Your task to perform on an android device: open device folders in google photos Image 0: 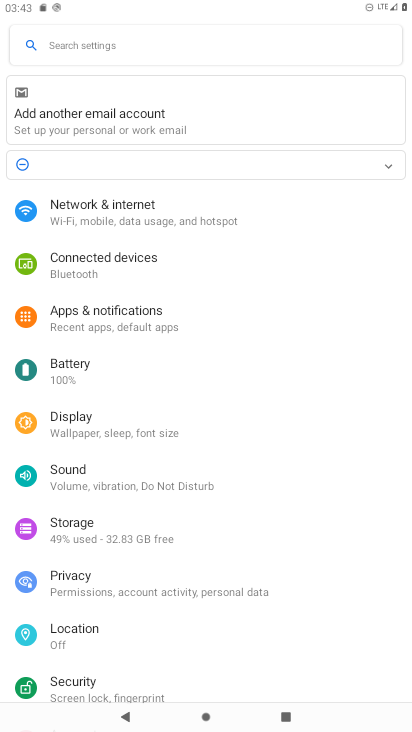
Step 0: press home button
Your task to perform on an android device: open device folders in google photos Image 1: 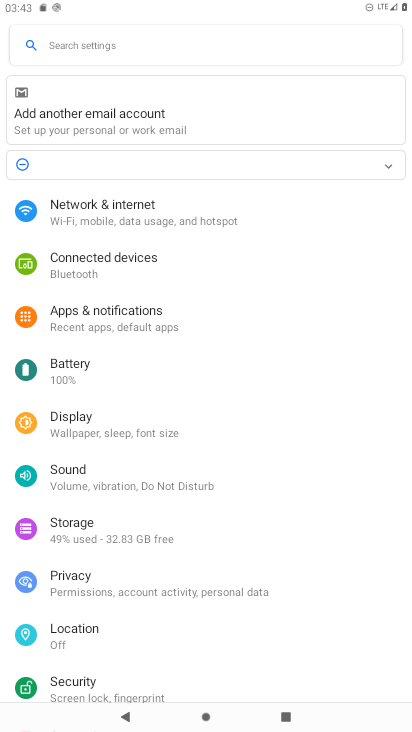
Step 1: press home button
Your task to perform on an android device: open device folders in google photos Image 2: 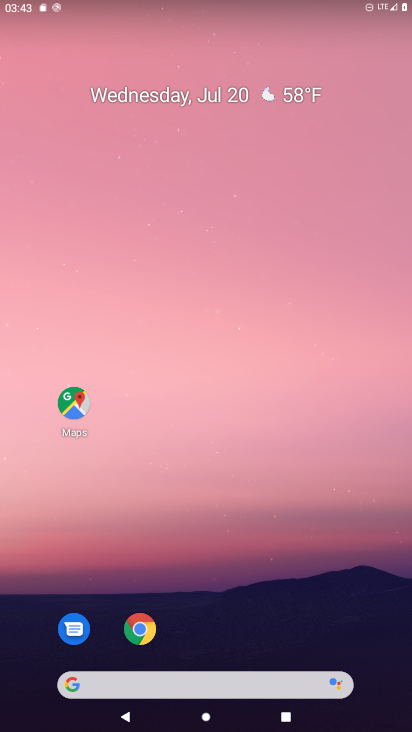
Step 2: drag from (275, 547) to (248, 133)
Your task to perform on an android device: open device folders in google photos Image 3: 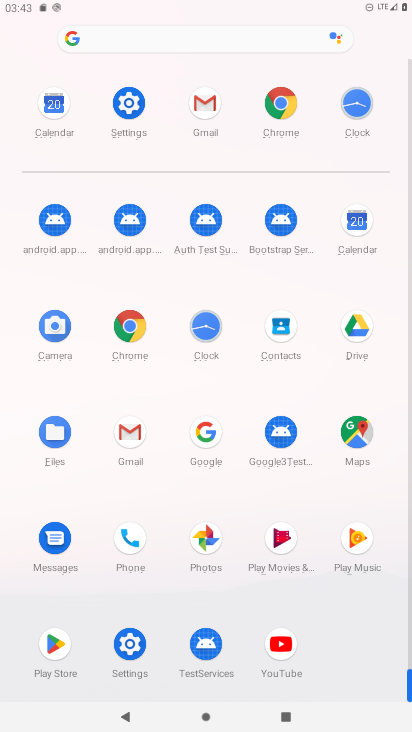
Step 3: click (184, 553)
Your task to perform on an android device: open device folders in google photos Image 4: 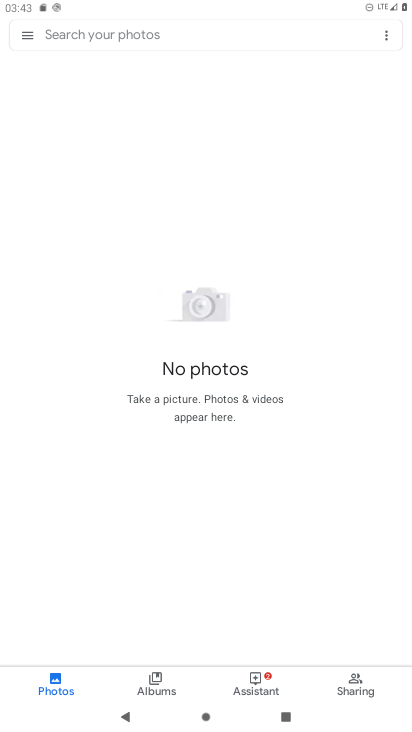
Step 4: click (16, 37)
Your task to perform on an android device: open device folders in google photos Image 5: 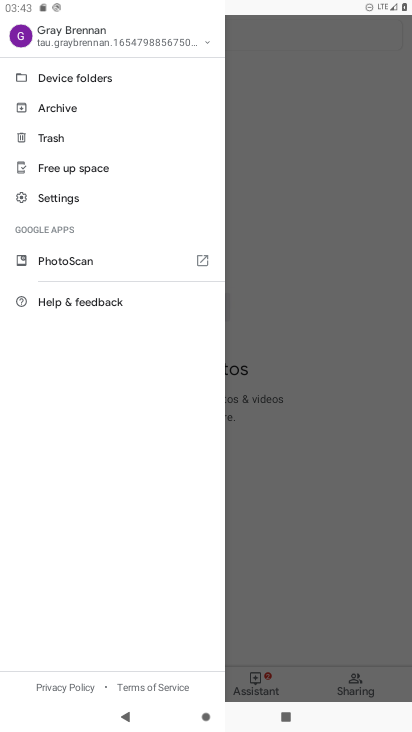
Step 5: click (71, 76)
Your task to perform on an android device: open device folders in google photos Image 6: 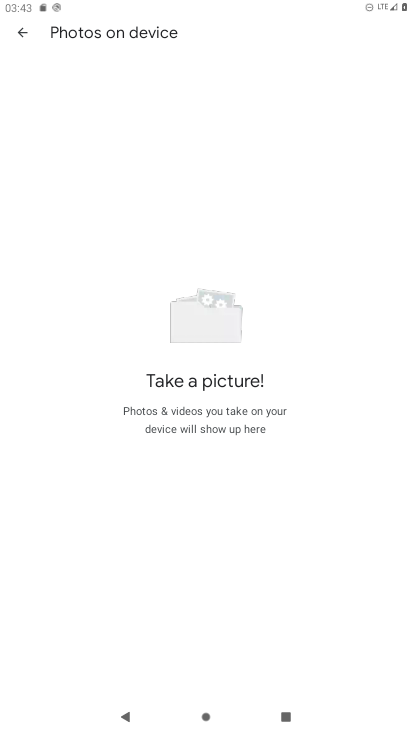
Step 6: task complete